Your task to perform on an android device: change timer sound Image 0: 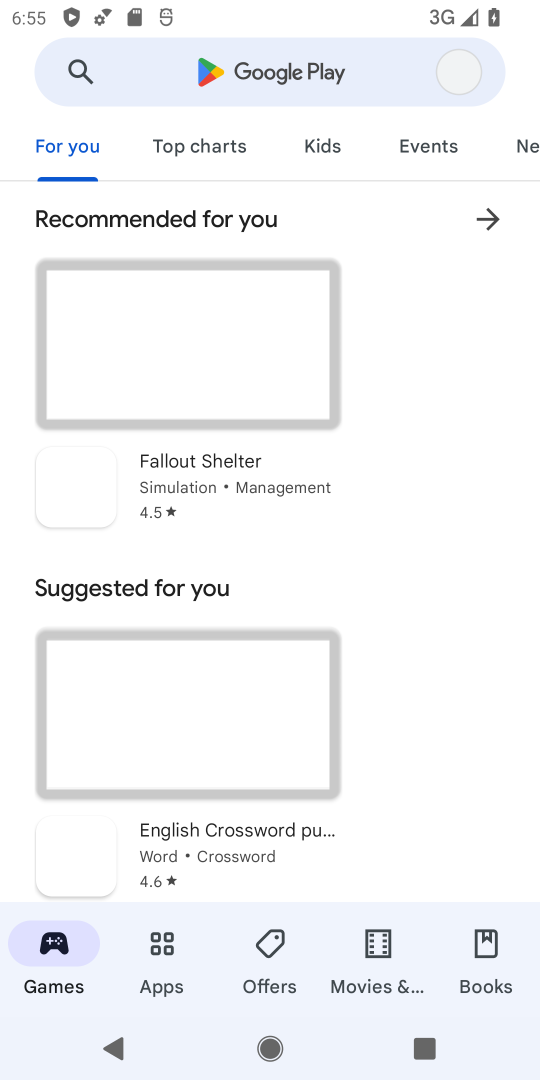
Step 0: press home button
Your task to perform on an android device: change timer sound Image 1: 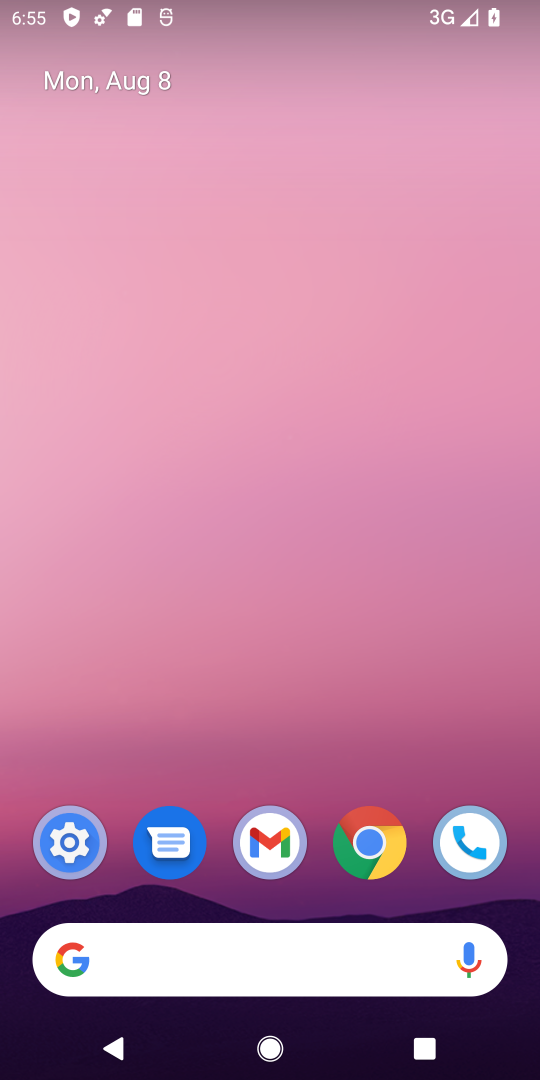
Step 1: drag from (255, 913) to (238, 0)
Your task to perform on an android device: change timer sound Image 2: 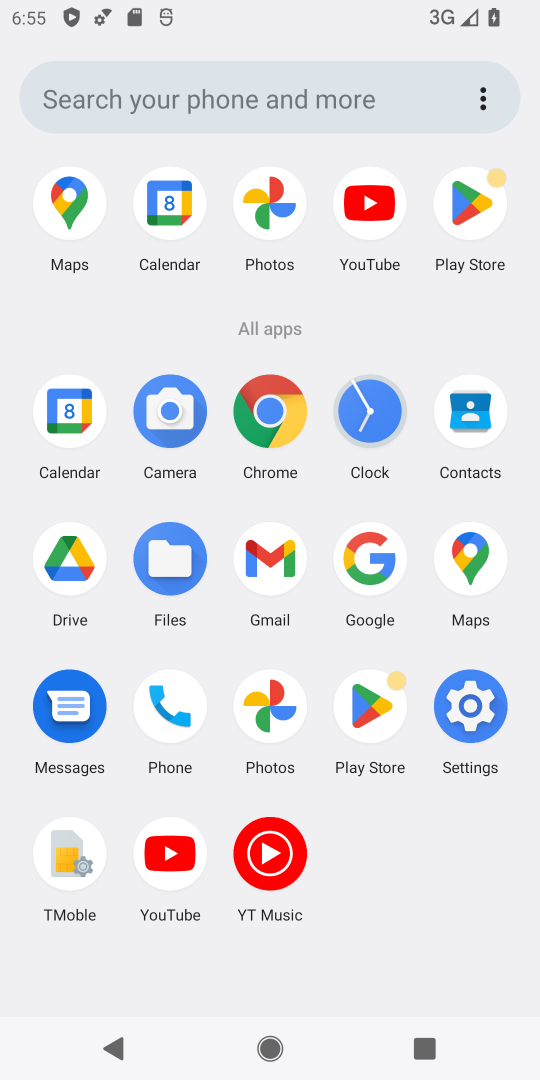
Step 2: click (372, 433)
Your task to perform on an android device: change timer sound Image 3: 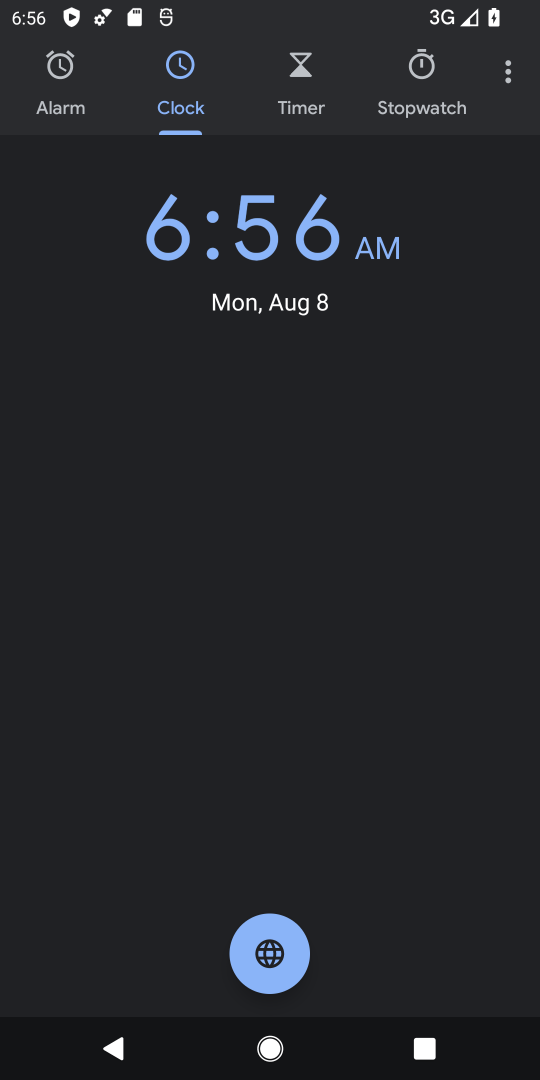
Step 3: click (494, 77)
Your task to perform on an android device: change timer sound Image 4: 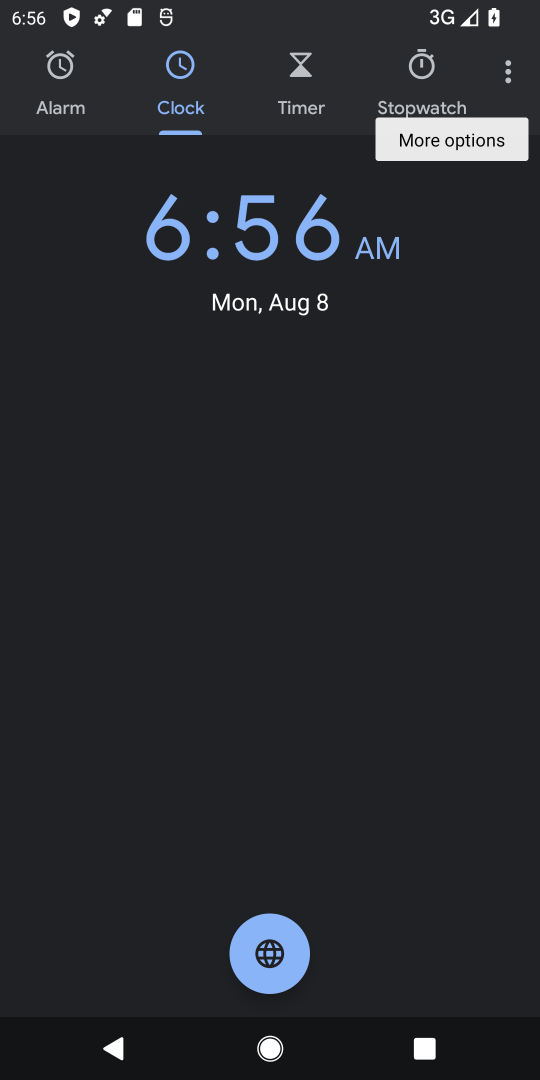
Step 4: click (475, 138)
Your task to perform on an android device: change timer sound Image 5: 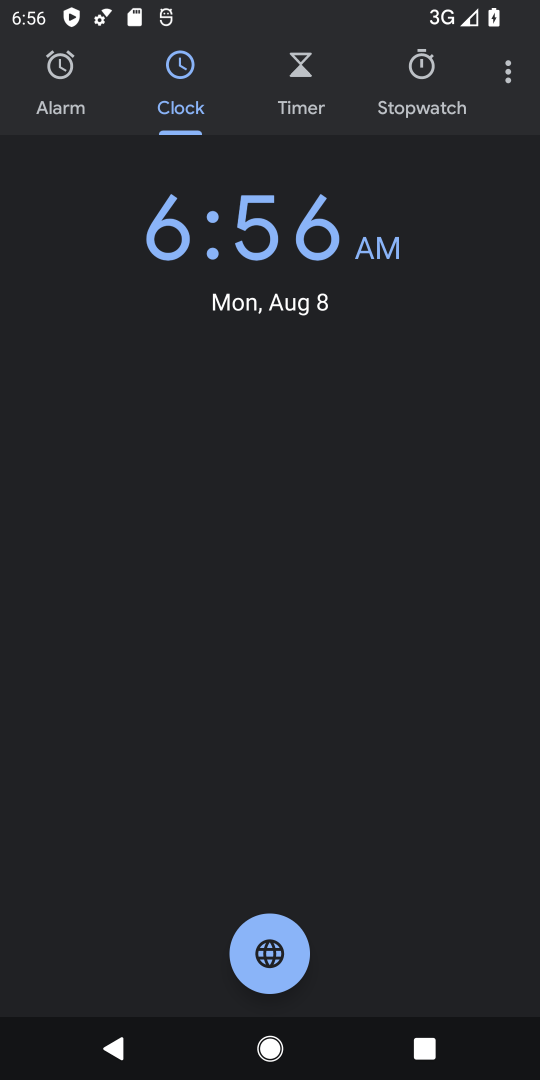
Step 5: drag from (514, 62) to (386, 138)
Your task to perform on an android device: change timer sound Image 6: 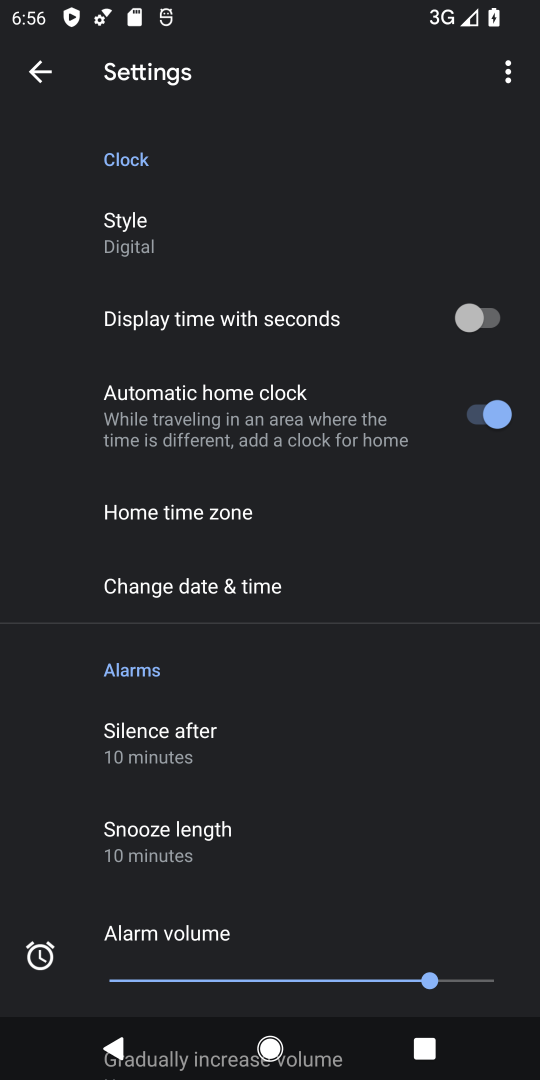
Step 6: drag from (217, 712) to (205, 24)
Your task to perform on an android device: change timer sound Image 7: 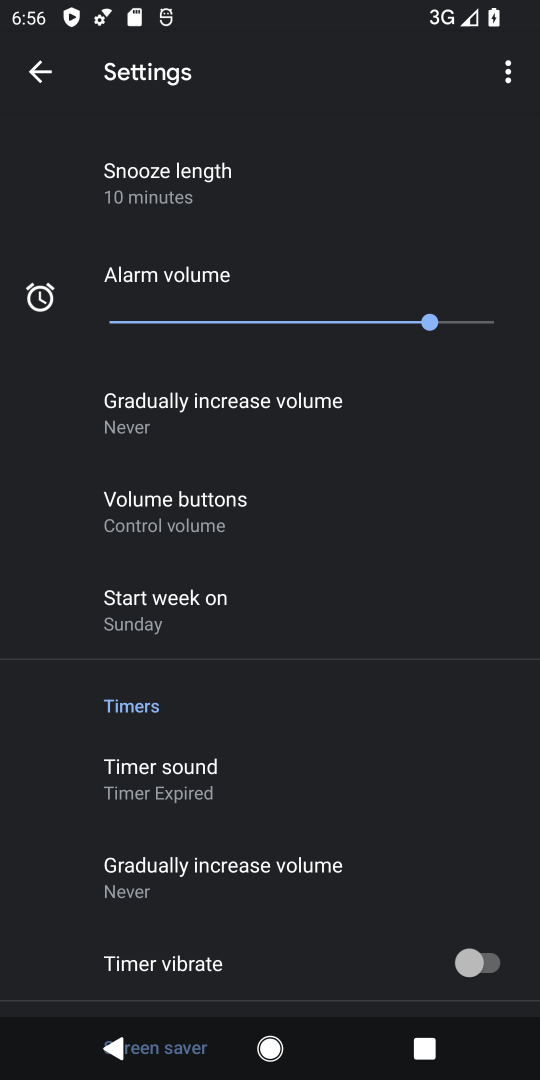
Step 7: click (187, 769)
Your task to perform on an android device: change timer sound Image 8: 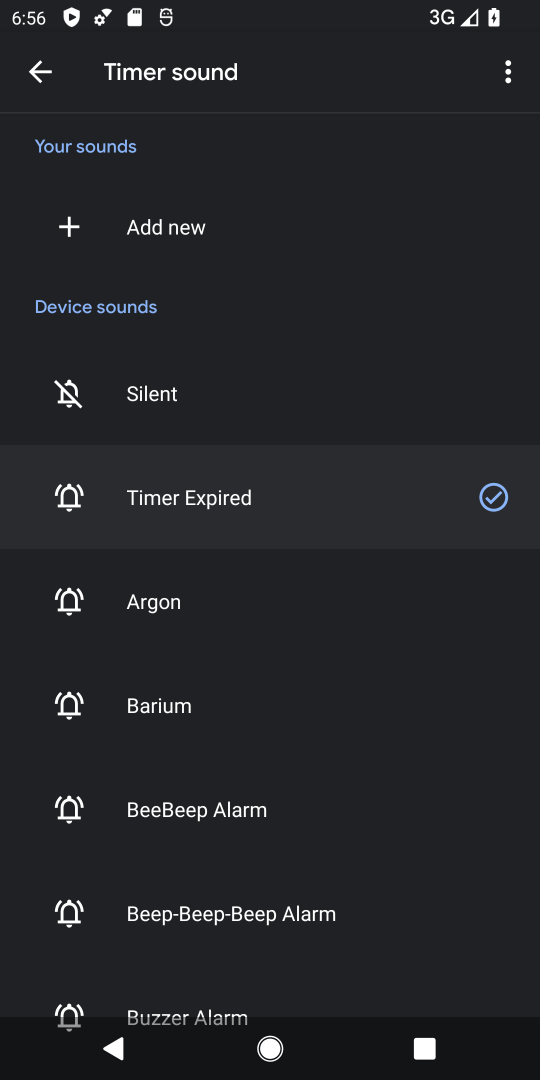
Step 8: click (186, 624)
Your task to perform on an android device: change timer sound Image 9: 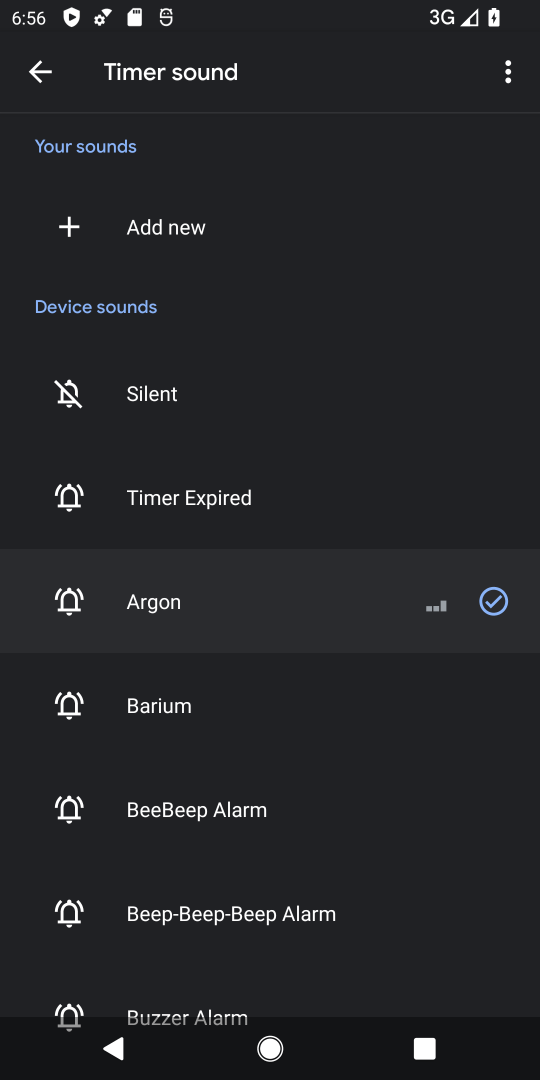
Step 9: task complete